Your task to perform on an android device: Go to eBay Image 0: 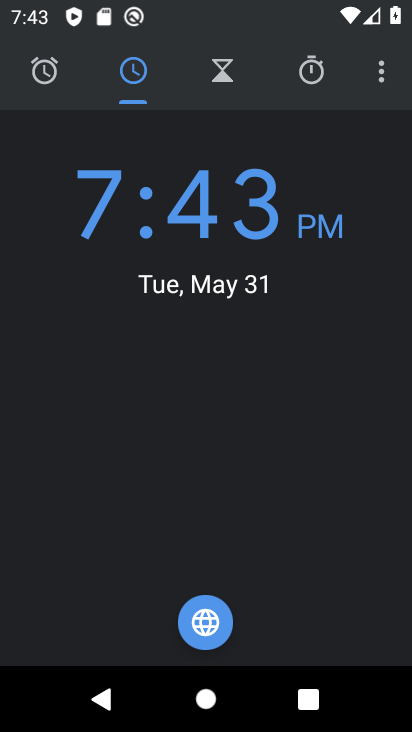
Step 0: press home button
Your task to perform on an android device: Go to eBay Image 1: 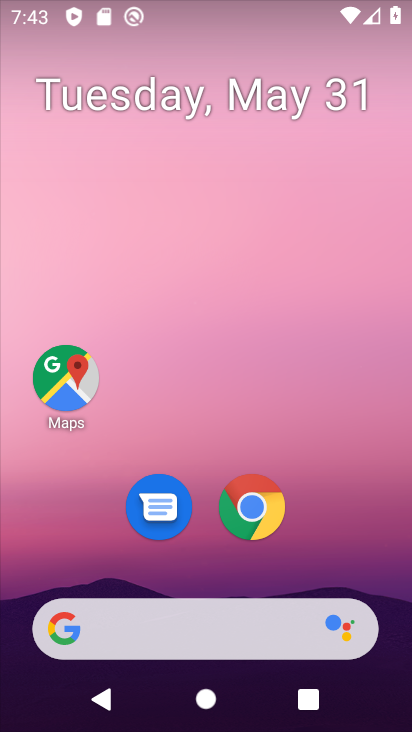
Step 1: click (236, 512)
Your task to perform on an android device: Go to eBay Image 2: 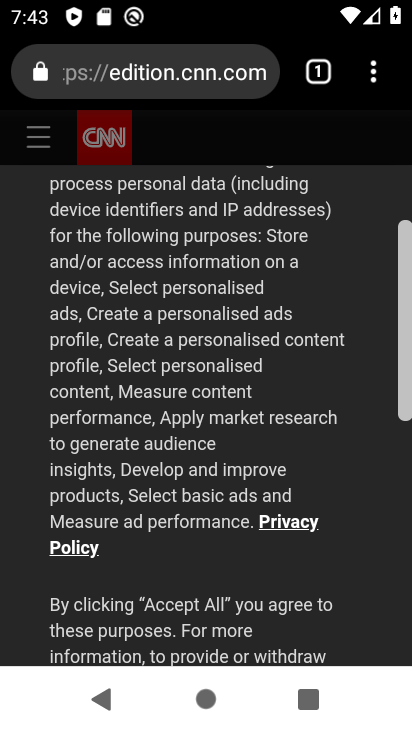
Step 2: click (114, 92)
Your task to perform on an android device: Go to eBay Image 3: 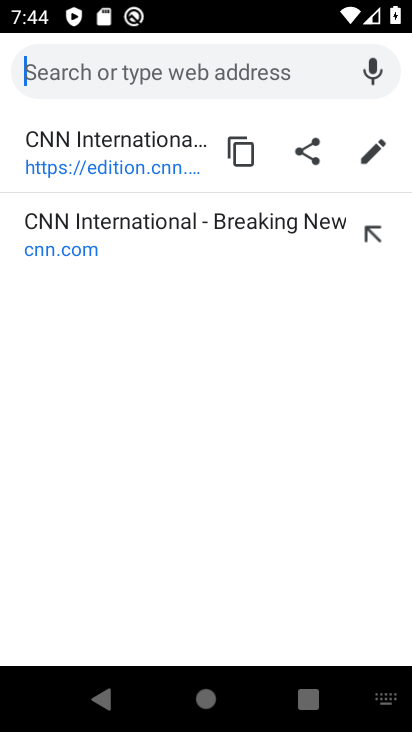
Step 3: type "ebay"
Your task to perform on an android device: Go to eBay Image 4: 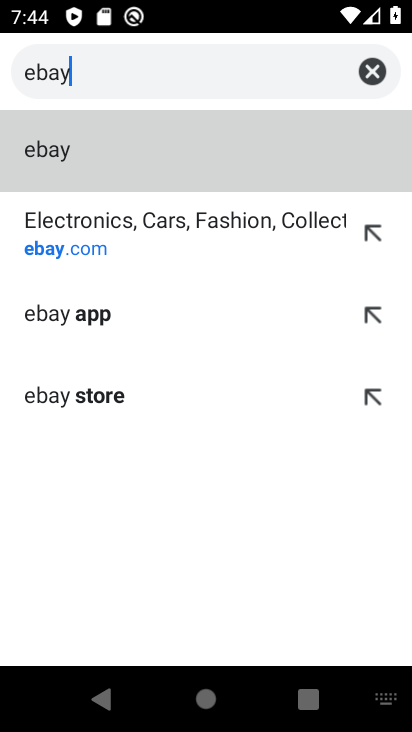
Step 4: click (50, 152)
Your task to perform on an android device: Go to eBay Image 5: 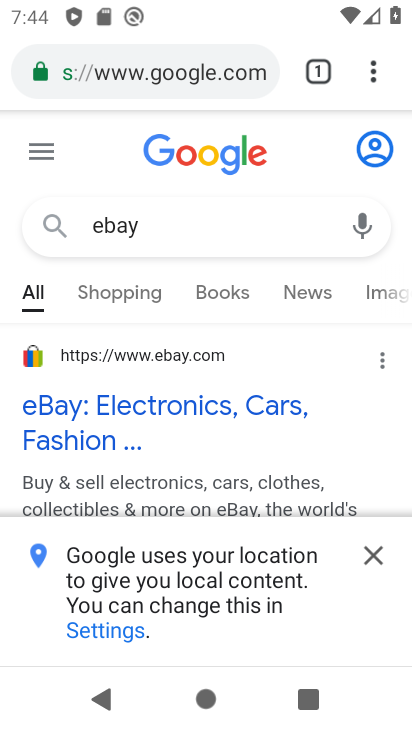
Step 5: click (40, 397)
Your task to perform on an android device: Go to eBay Image 6: 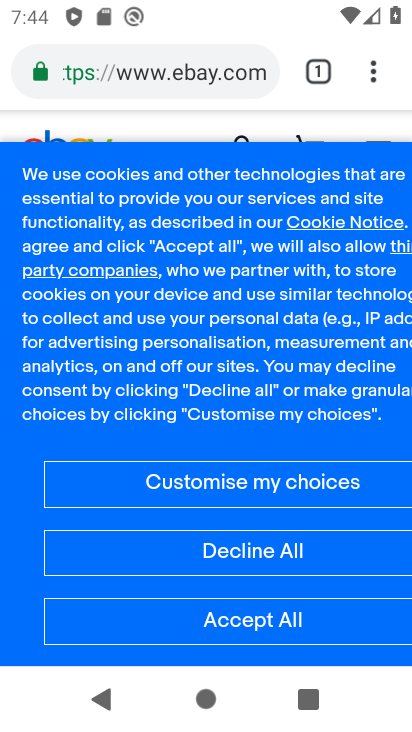
Step 6: task complete